Your task to perform on an android device: Go to settings Image 0: 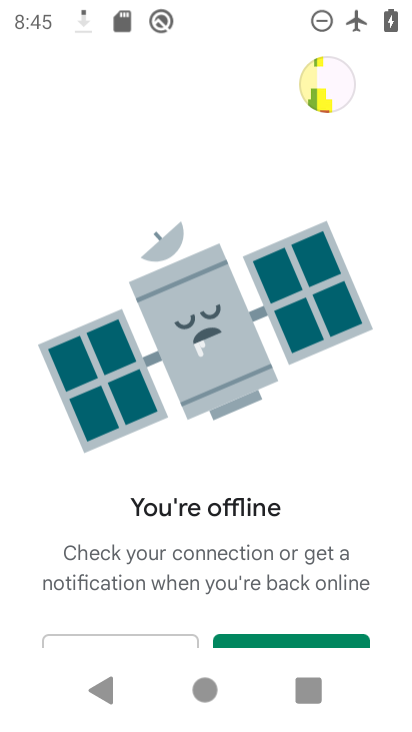
Step 0: press home button
Your task to perform on an android device: Go to settings Image 1: 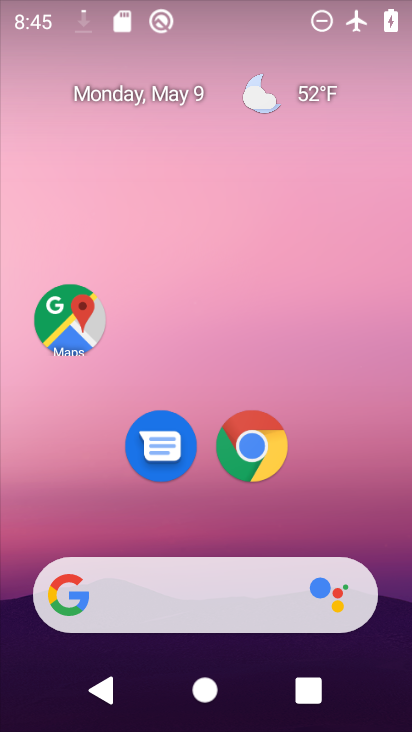
Step 1: drag from (392, 629) to (317, 69)
Your task to perform on an android device: Go to settings Image 2: 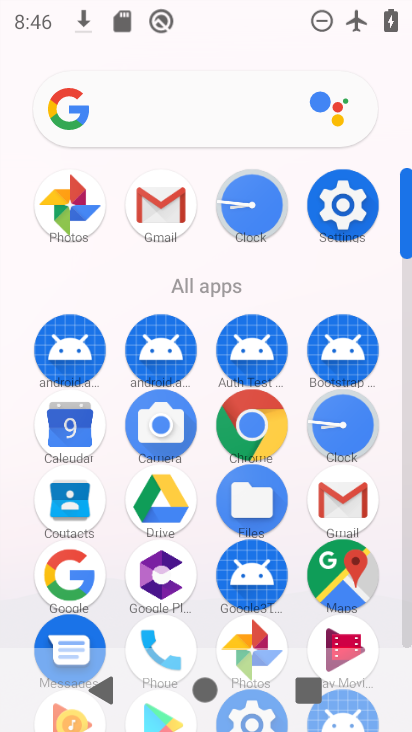
Step 2: click (345, 207)
Your task to perform on an android device: Go to settings Image 3: 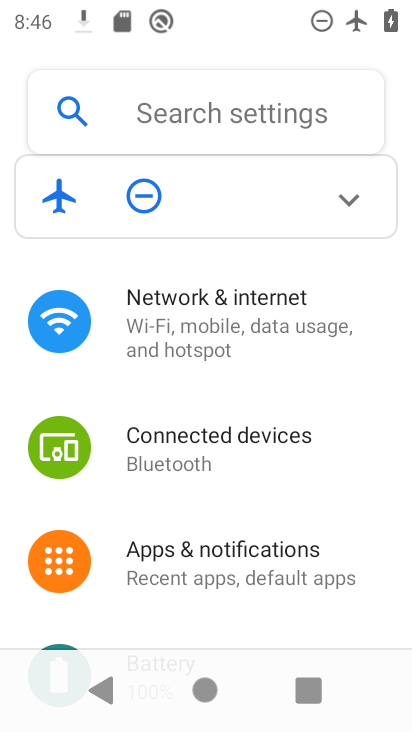
Step 3: task complete